Your task to perform on an android device: Open Maps and search for coffee Image 0: 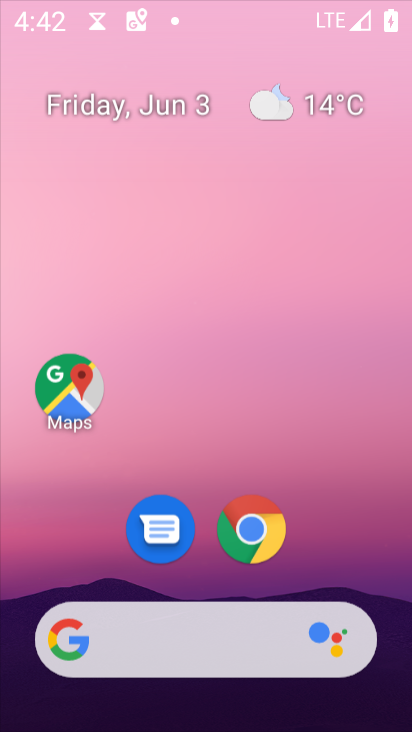
Step 0: click (411, 150)
Your task to perform on an android device: Open Maps and search for coffee Image 1: 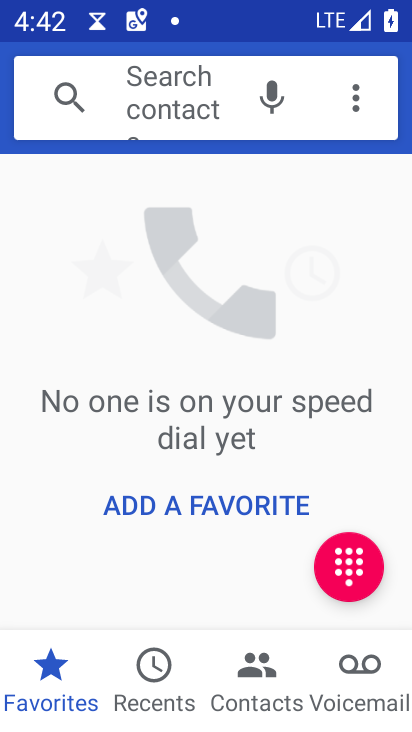
Step 1: press home button
Your task to perform on an android device: Open Maps and search for coffee Image 2: 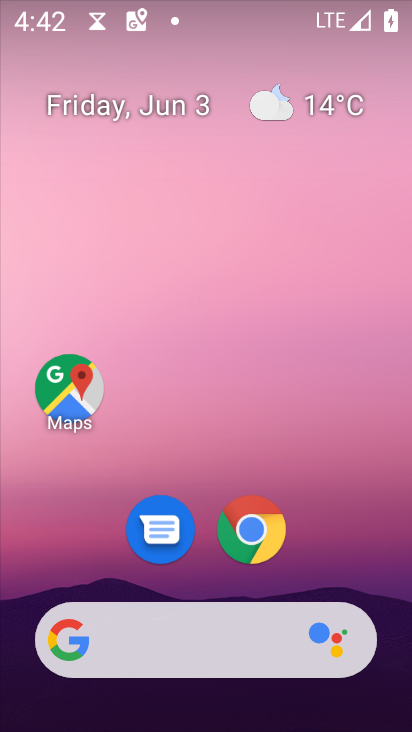
Step 2: click (91, 388)
Your task to perform on an android device: Open Maps and search for coffee Image 3: 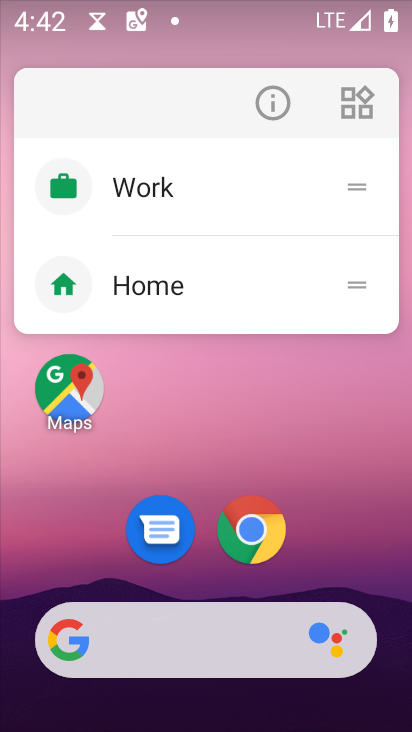
Step 3: click (370, 540)
Your task to perform on an android device: Open Maps and search for coffee Image 4: 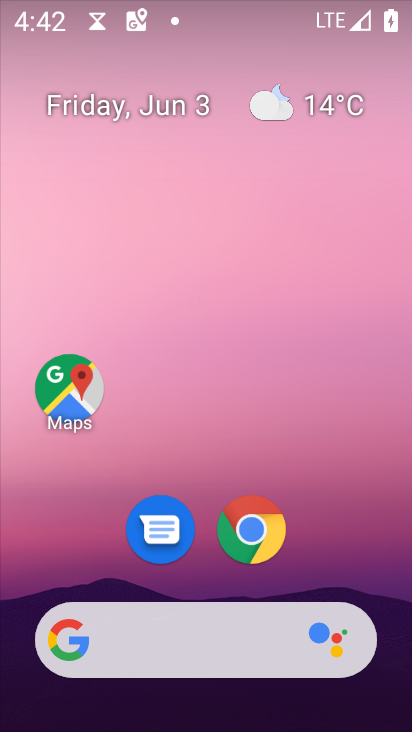
Step 4: drag from (384, 553) to (328, 3)
Your task to perform on an android device: Open Maps and search for coffee Image 5: 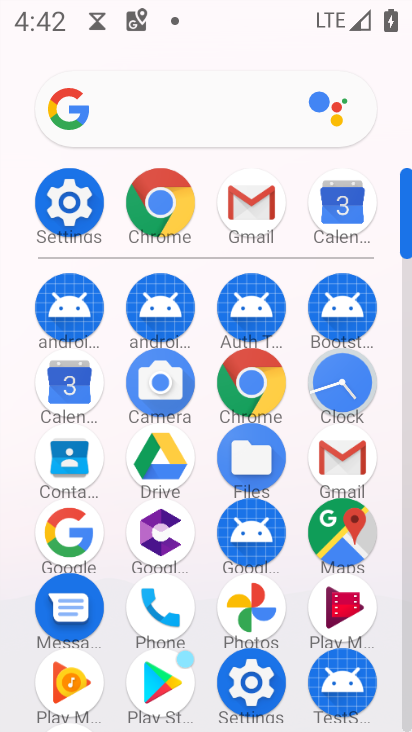
Step 5: click (347, 512)
Your task to perform on an android device: Open Maps and search for coffee Image 6: 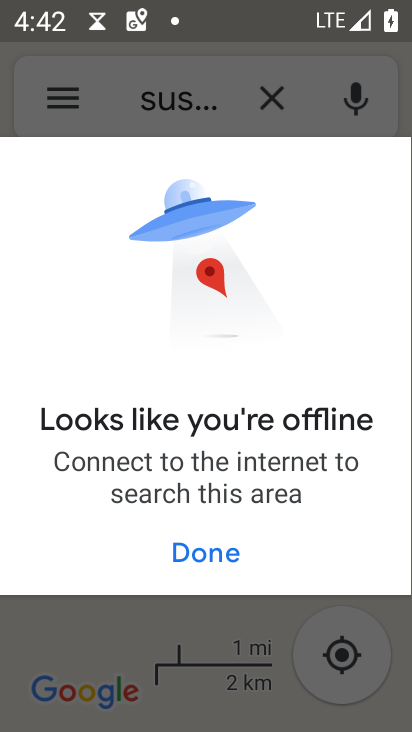
Step 6: click (211, 556)
Your task to perform on an android device: Open Maps and search for coffee Image 7: 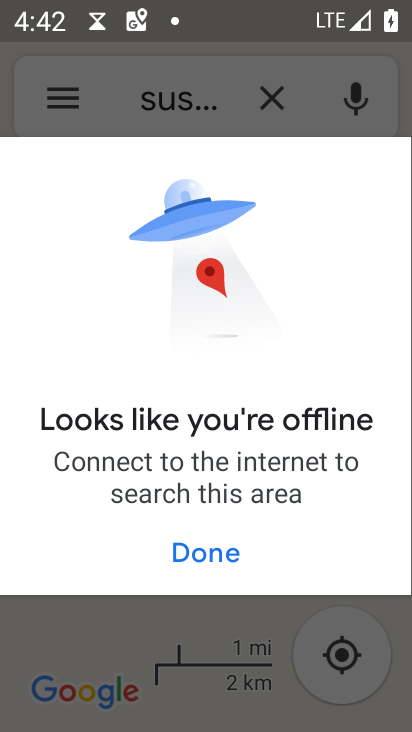
Step 7: click (259, 100)
Your task to perform on an android device: Open Maps and search for coffee Image 8: 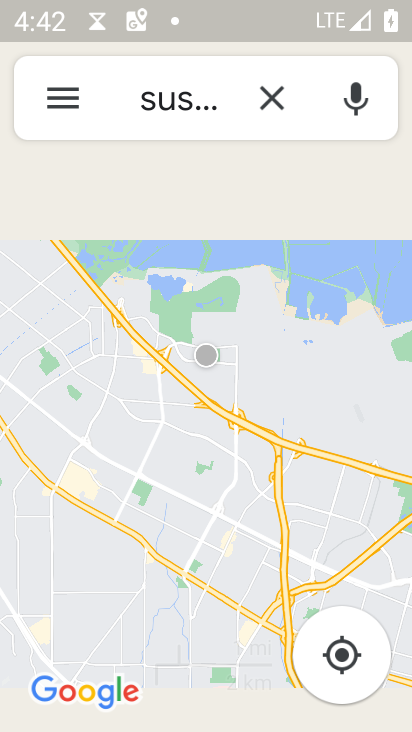
Step 8: click (272, 101)
Your task to perform on an android device: Open Maps and search for coffee Image 9: 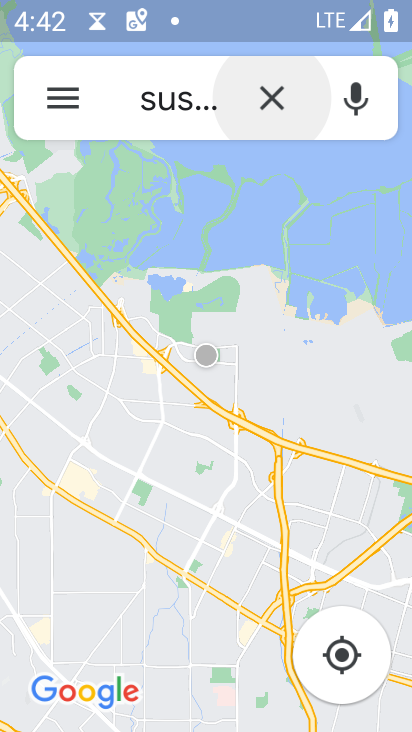
Step 9: click (272, 101)
Your task to perform on an android device: Open Maps and search for coffee Image 10: 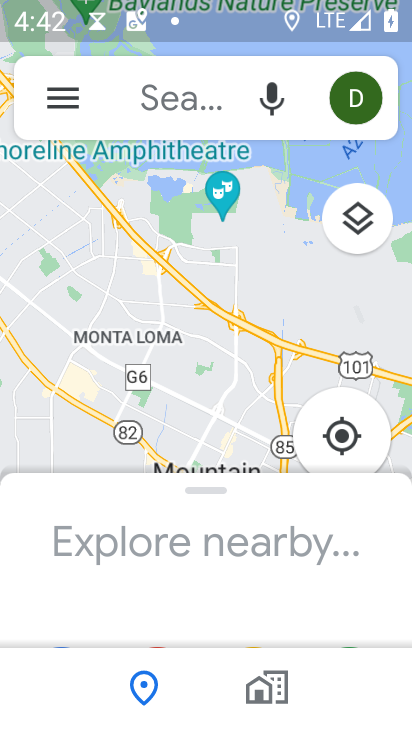
Step 10: click (192, 111)
Your task to perform on an android device: Open Maps and search for coffee Image 11: 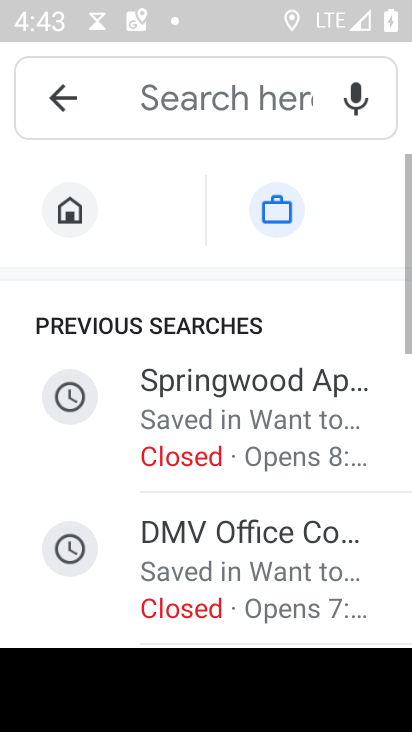
Step 11: type "coffee"
Your task to perform on an android device: Open Maps and search for coffee Image 12: 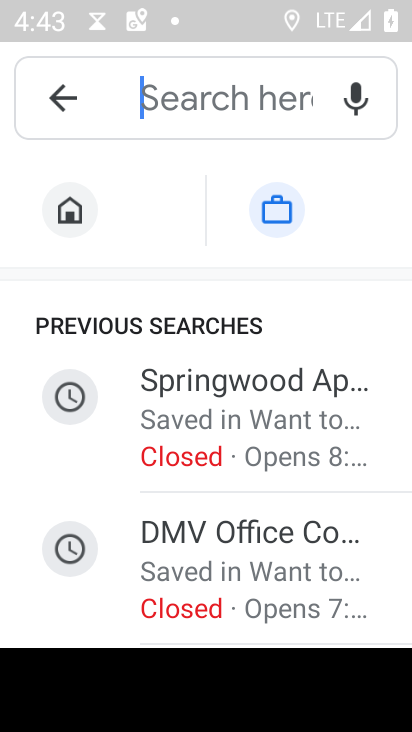
Step 12: click (404, 656)
Your task to perform on an android device: Open Maps and search for coffee Image 13: 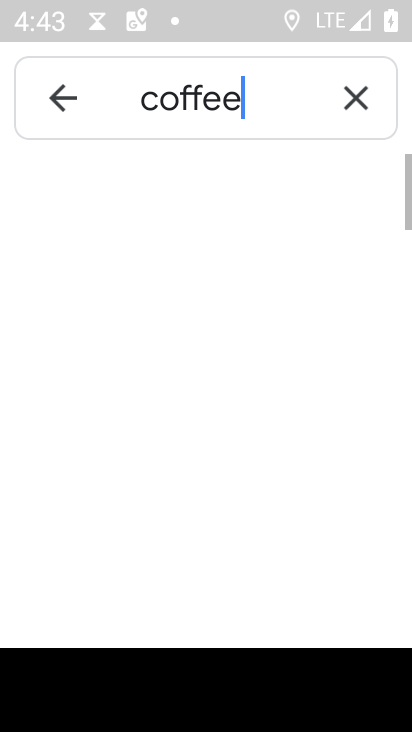
Step 13: drag from (369, 195) to (404, 464)
Your task to perform on an android device: Open Maps and search for coffee Image 14: 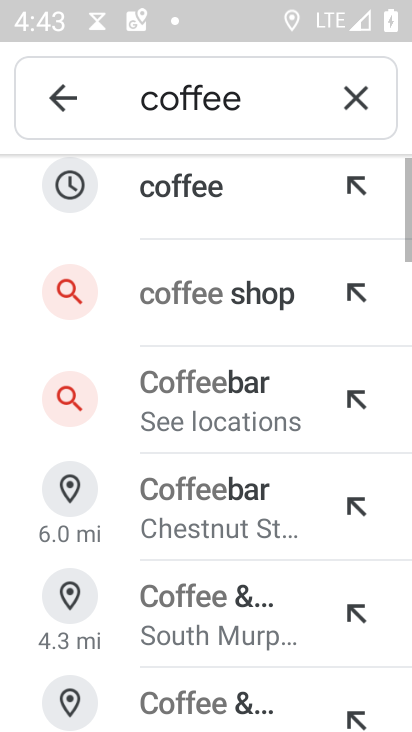
Step 14: click (220, 222)
Your task to perform on an android device: Open Maps and search for coffee Image 15: 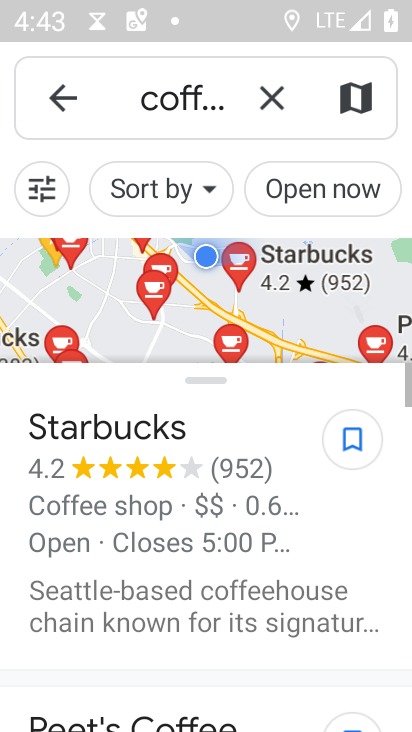
Step 15: task complete